Your task to perform on an android device: Open Maps and search for coffee Image 0: 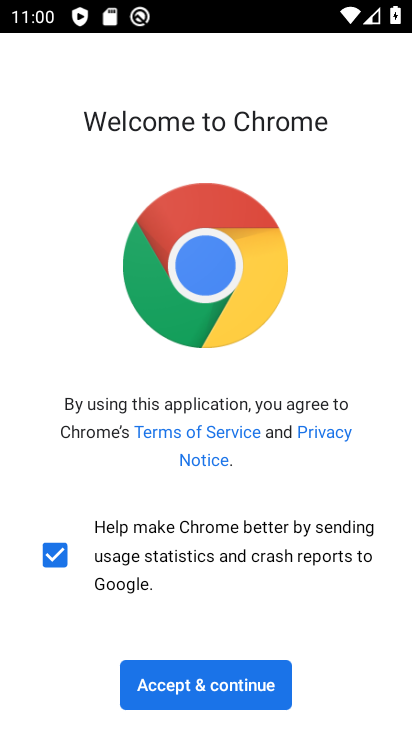
Step 0: press home button
Your task to perform on an android device: Open Maps and search for coffee Image 1: 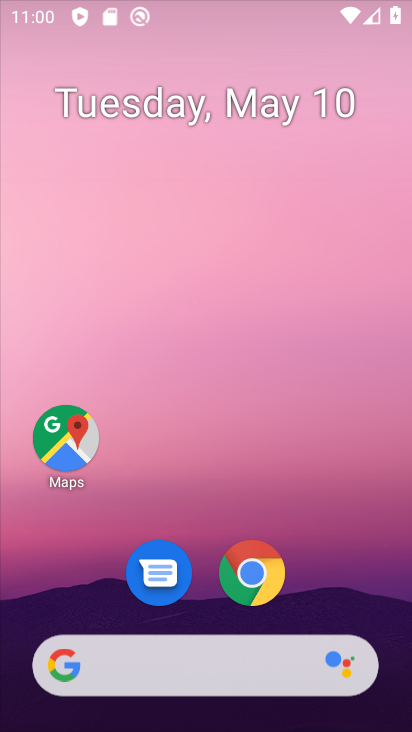
Step 1: drag from (189, 589) to (192, 242)
Your task to perform on an android device: Open Maps and search for coffee Image 2: 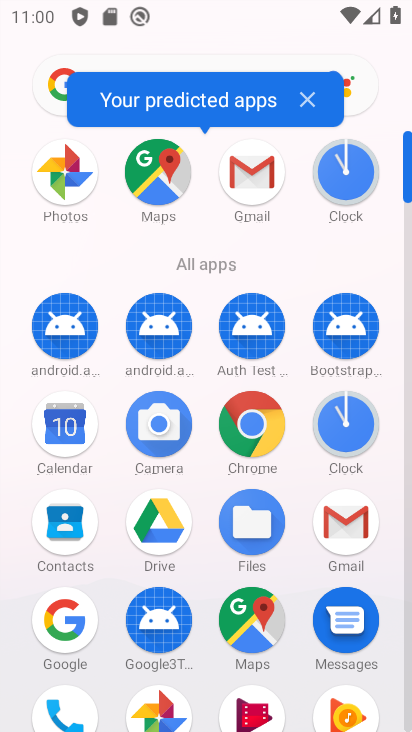
Step 2: click (248, 620)
Your task to perform on an android device: Open Maps and search for coffee Image 3: 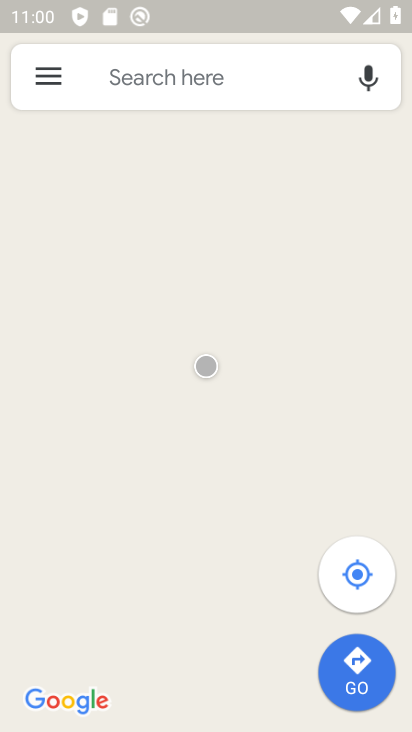
Step 3: click (181, 80)
Your task to perform on an android device: Open Maps and search for coffee Image 4: 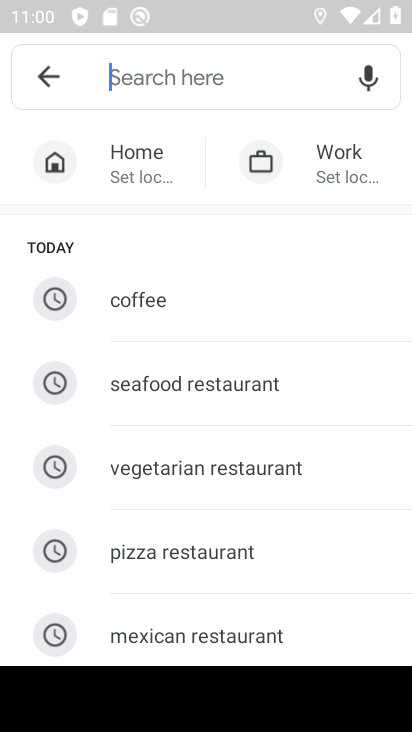
Step 4: type "coffee"
Your task to perform on an android device: Open Maps and search for coffee Image 5: 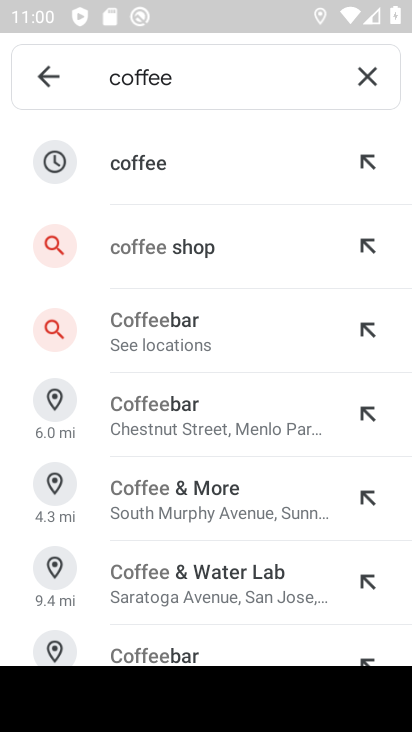
Step 5: click (146, 165)
Your task to perform on an android device: Open Maps and search for coffee Image 6: 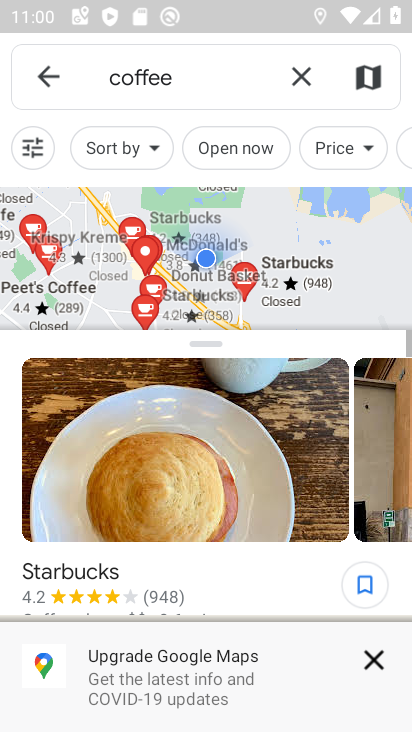
Step 6: task complete